Your task to perform on an android device: Go to notification settings Image 0: 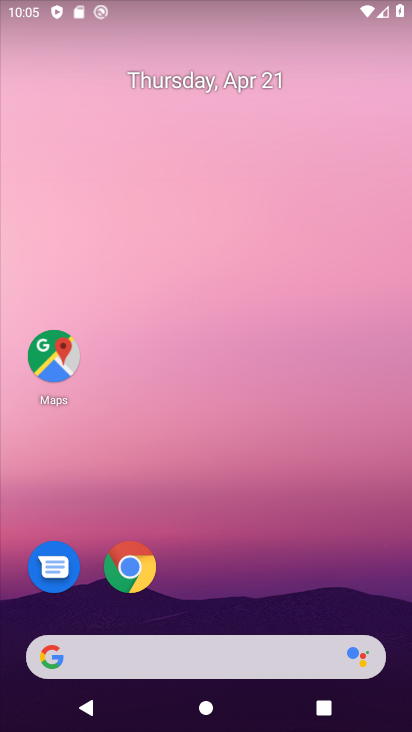
Step 0: drag from (203, 601) to (295, 0)
Your task to perform on an android device: Go to notification settings Image 1: 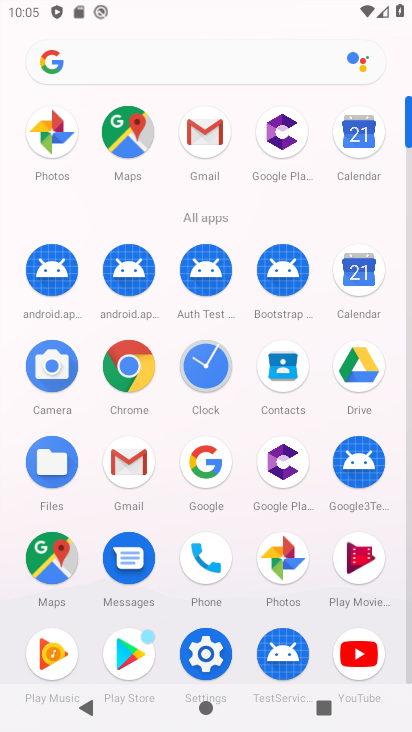
Step 1: click (211, 657)
Your task to perform on an android device: Go to notification settings Image 2: 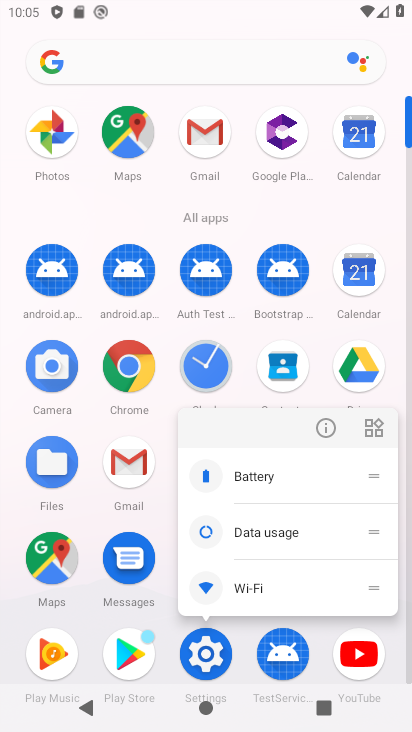
Step 2: click (210, 649)
Your task to perform on an android device: Go to notification settings Image 3: 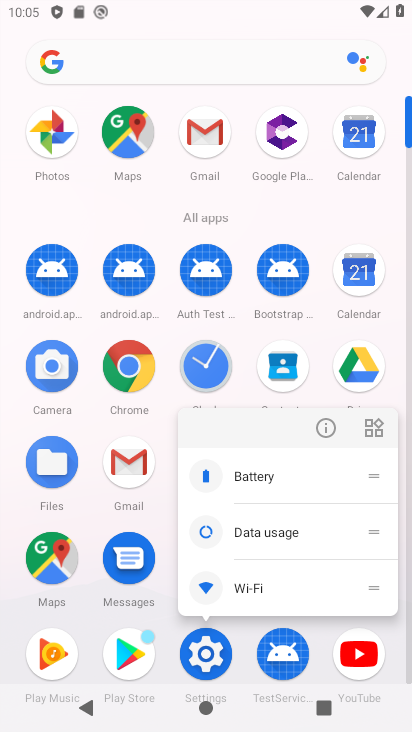
Step 3: click (209, 648)
Your task to perform on an android device: Go to notification settings Image 4: 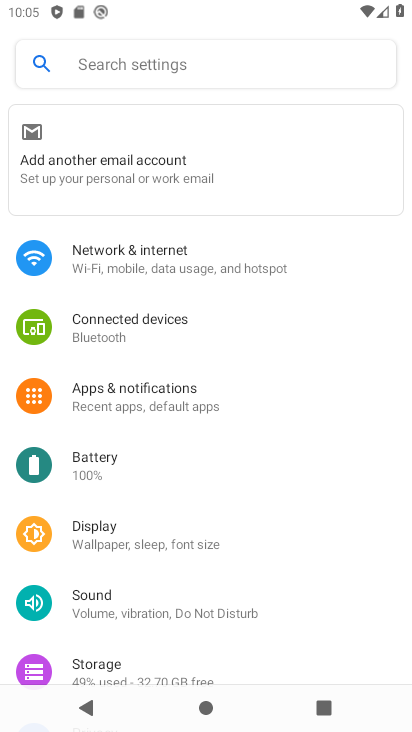
Step 4: click (135, 419)
Your task to perform on an android device: Go to notification settings Image 5: 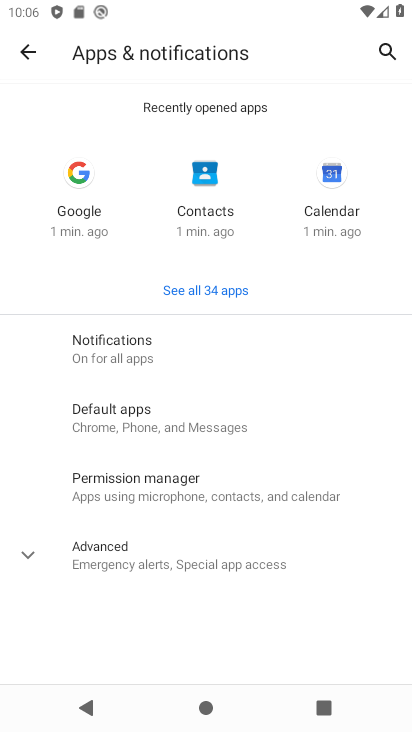
Step 5: click (146, 351)
Your task to perform on an android device: Go to notification settings Image 6: 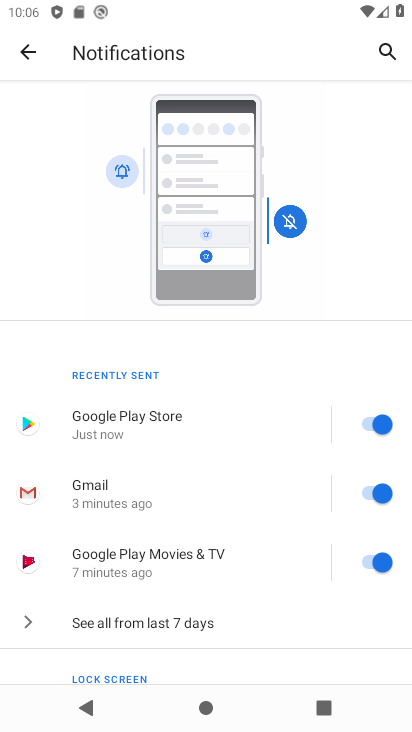
Step 6: task complete